Your task to perform on an android device: manage bookmarks in the chrome app Image 0: 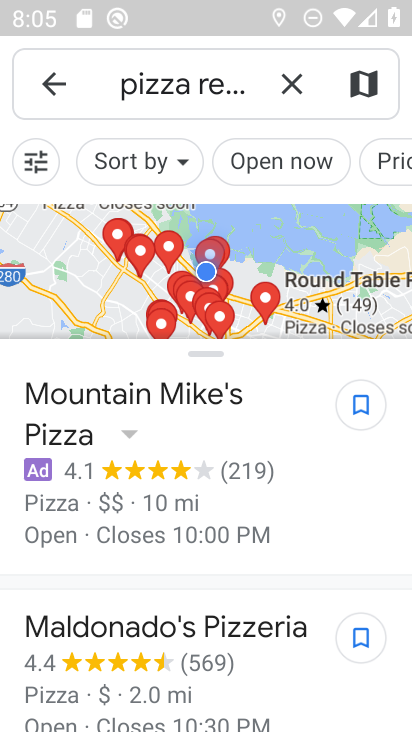
Step 0: press back button
Your task to perform on an android device: manage bookmarks in the chrome app Image 1: 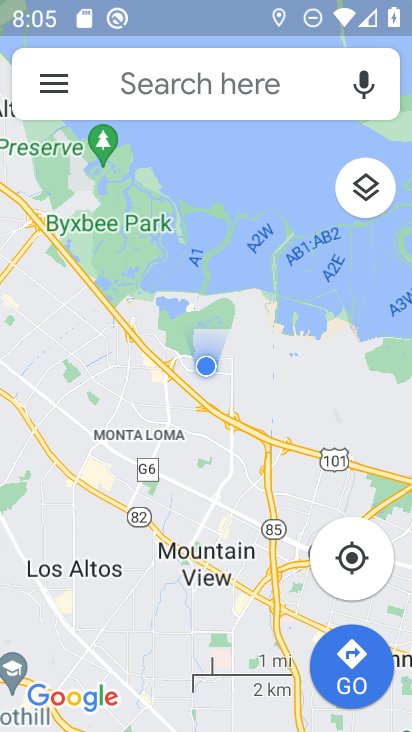
Step 1: press back button
Your task to perform on an android device: manage bookmarks in the chrome app Image 2: 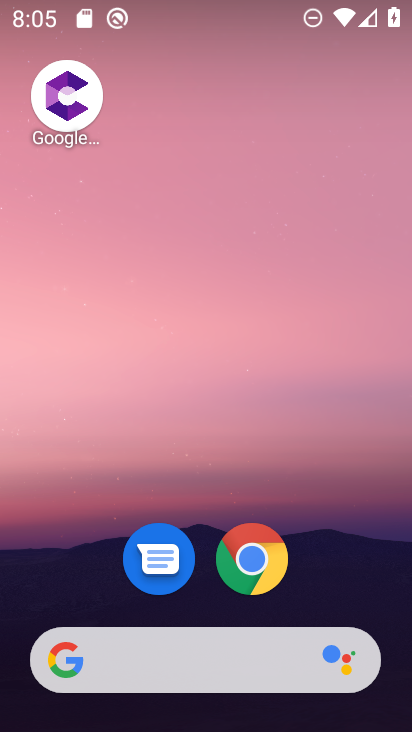
Step 2: click (244, 540)
Your task to perform on an android device: manage bookmarks in the chrome app Image 3: 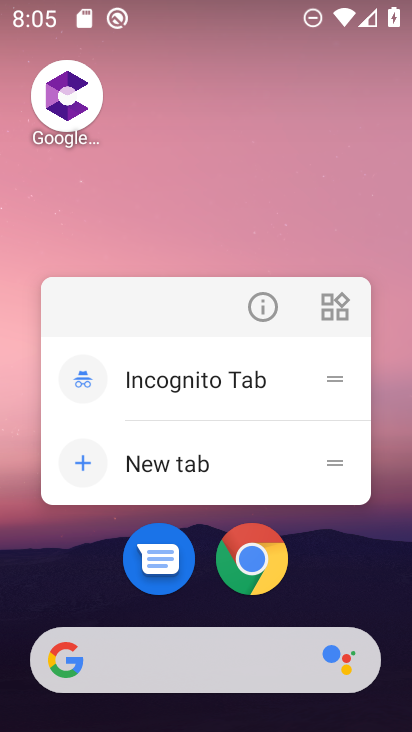
Step 3: click (261, 560)
Your task to perform on an android device: manage bookmarks in the chrome app Image 4: 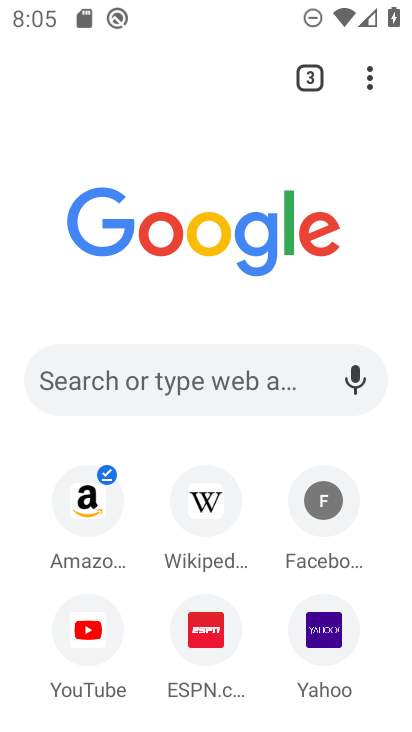
Step 4: drag from (369, 69) to (121, 287)
Your task to perform on an android device: manage bookmarks in the chrome app Image 5: 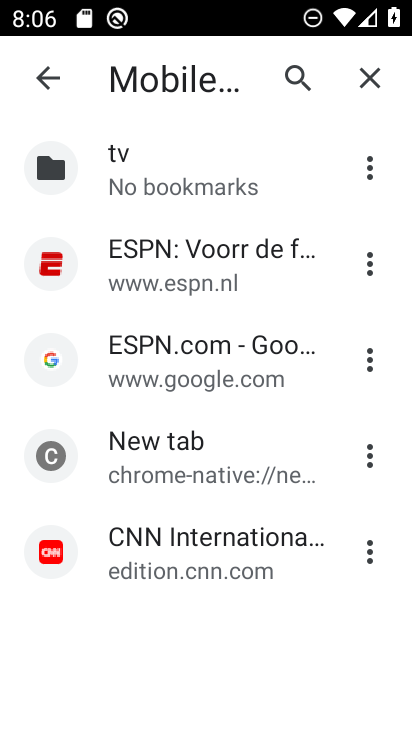
Step 5: click (368, 262)
Your task to perform on an android device: manage bookmarks in the chrome app Image 6: 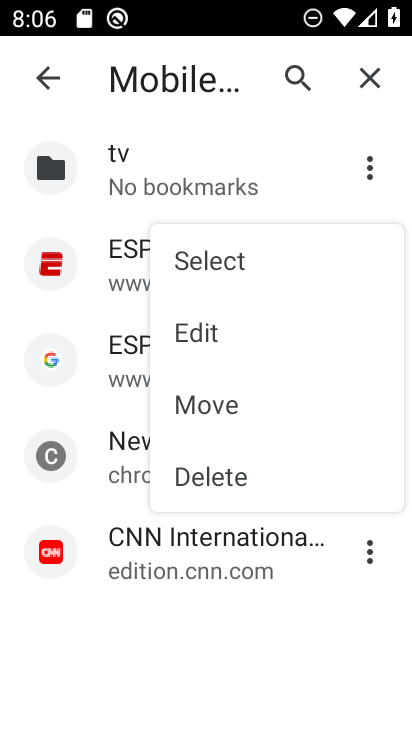
Step 6: click (197, 494)
Your task to perform on an android device: manage bookmarks in the chrome app Image 7: 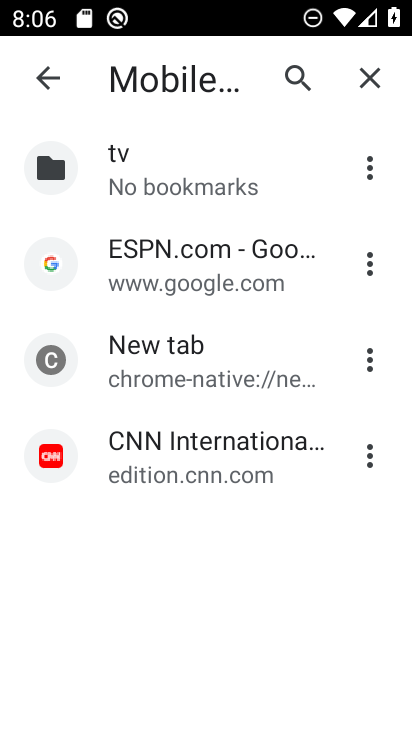
Step 7: task complete